Your task to perform on an android device: turn on airplane mode Image 0: 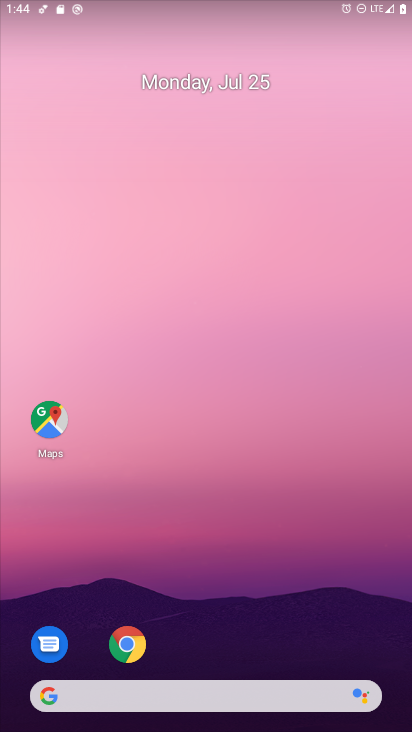
Step 0: drag from (223, 650) to (300, 121)
Your task to perform on an android device: turn on airplane mode Image 1: 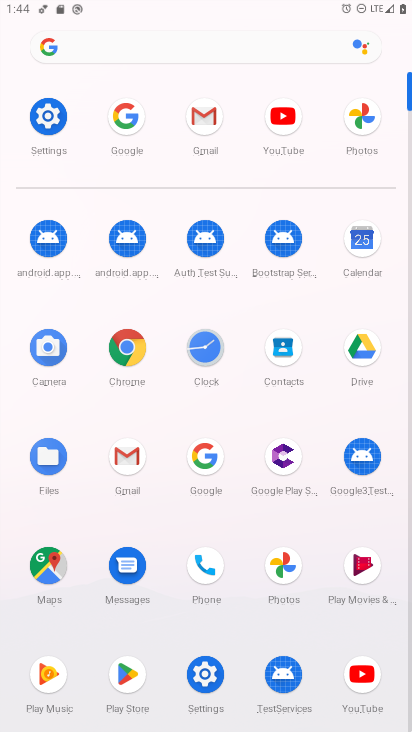
Step 1: click (46, 131)
Your task to perform on an android device: turn on airplane mode Image 2: 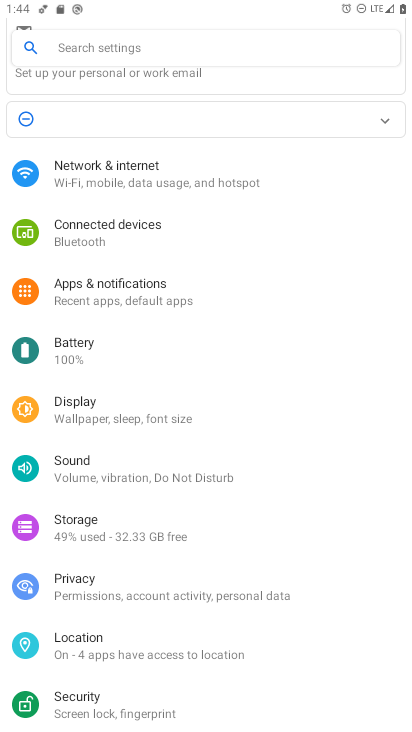
Step 2: click (93, 191)
Your task to perform on an android device: turn on airplane mode Image 3: 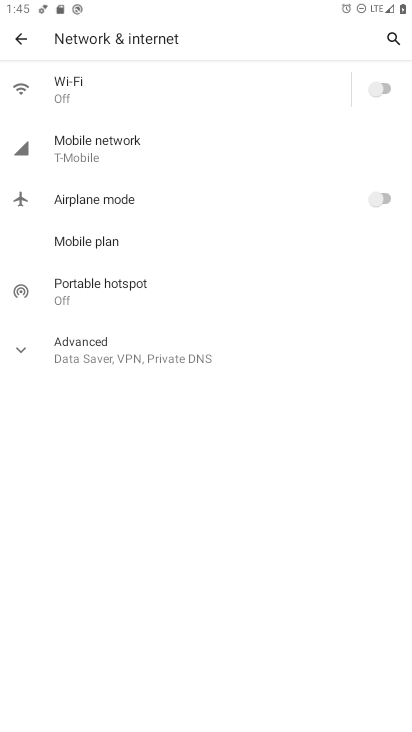
Step 3: click (381, 188)
Your task to perform on an android device: turn on airplane mode Image 4: 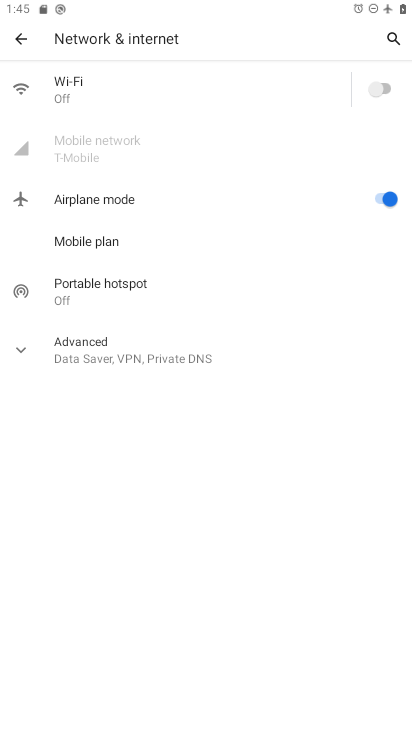
Step 4: task complete